Your task to perform on an android device: visit the assistant section in the google photos Image 0: 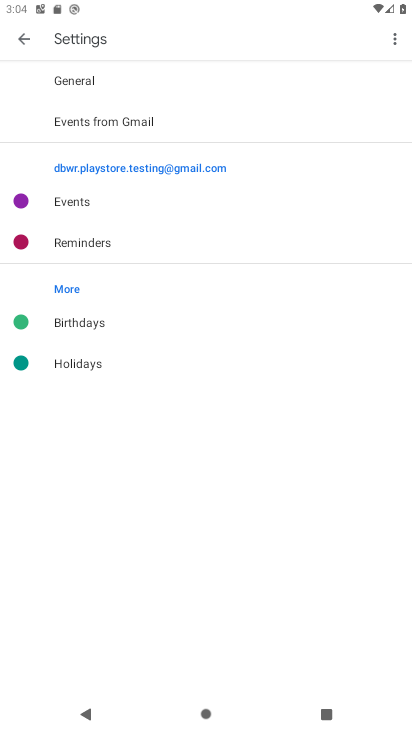
Step 0: press home button
Your task to perform on an android device: visit the assistant section in the google photos Image 1: 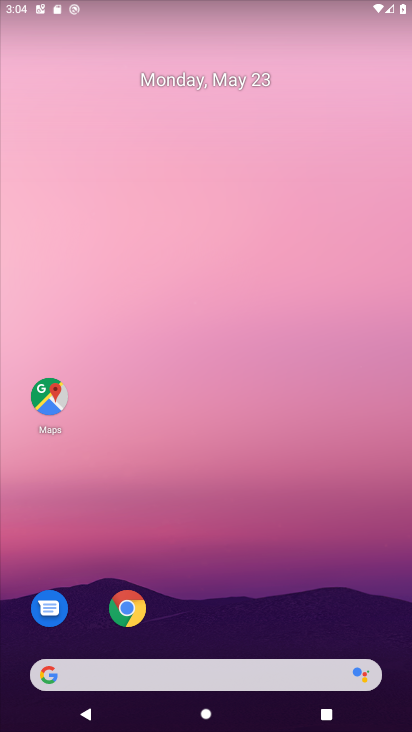
Step 1: drag from (227, 626) to (179, 57)
Your task to perform on an android device: visit the assistant section in the google photos Image 2: 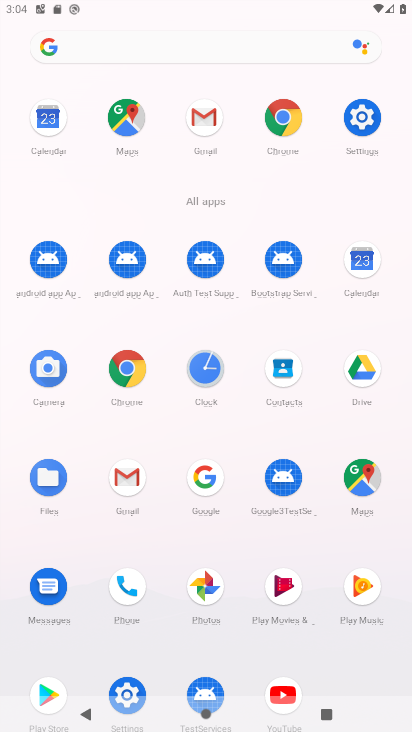
Step 2: click (207, 591)
Your task to perform on an android device: visit the assistant section in the google photos Image 3: 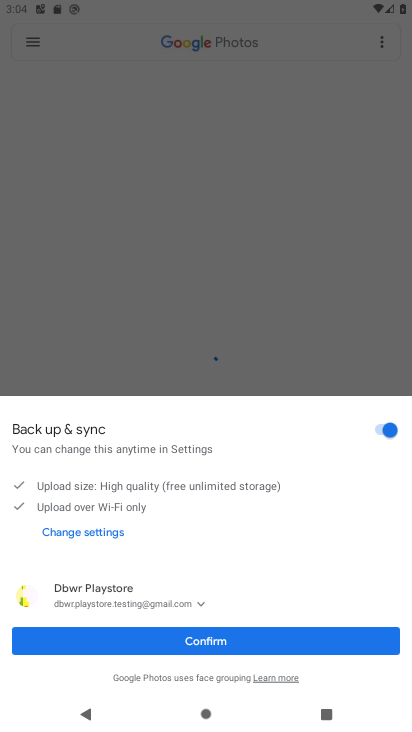
Step 3: click (226, 640)
Your task to perform on an android device: visit the assistant section in the google photos Image 4: 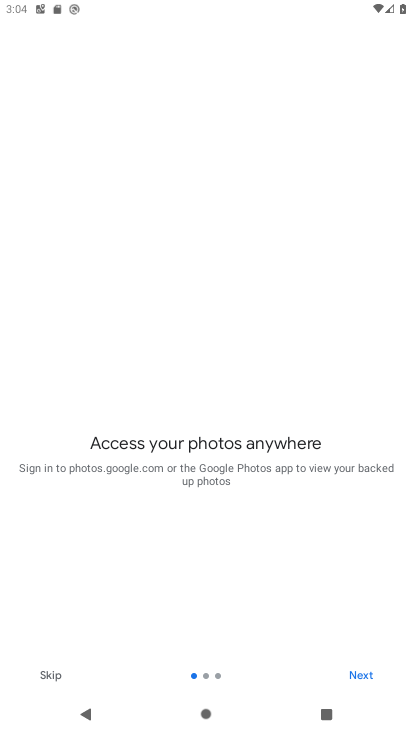
Step 4: click (61, 671)
Your task to perform on an android device: visit the assistant section in the google photos Image 5: 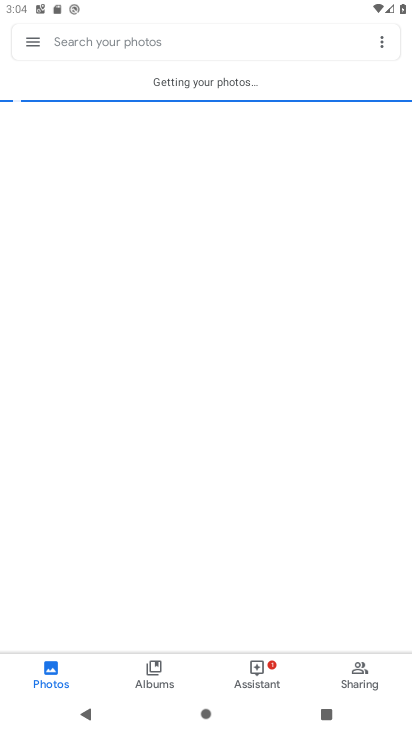
Step 5: click (272, 675)
Your task to perform on an android device: visit the assistant section in the google photos Image 6: 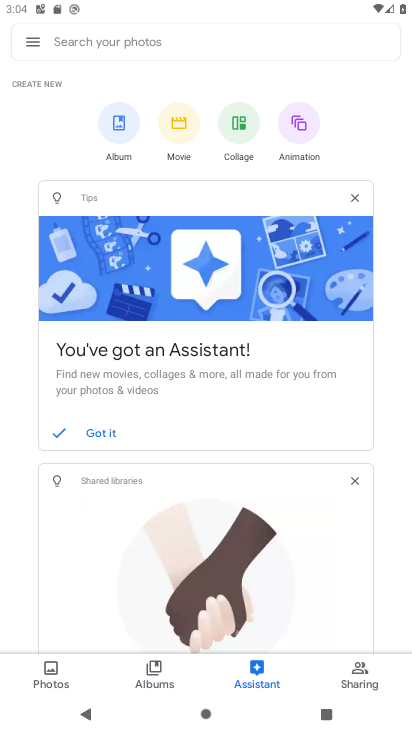
Step 6: task complete